Your task to perform on an android device: open sync settings in chrome Image 0: 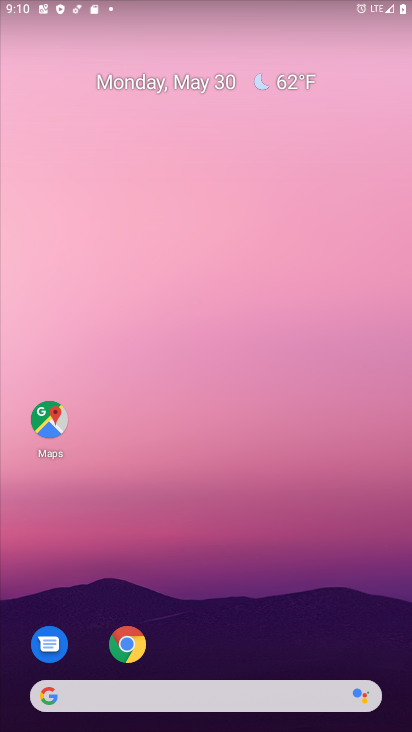
Step 0: click (126, 646)
Your task to perform on an android device: open sync settings in chrome Image 1: 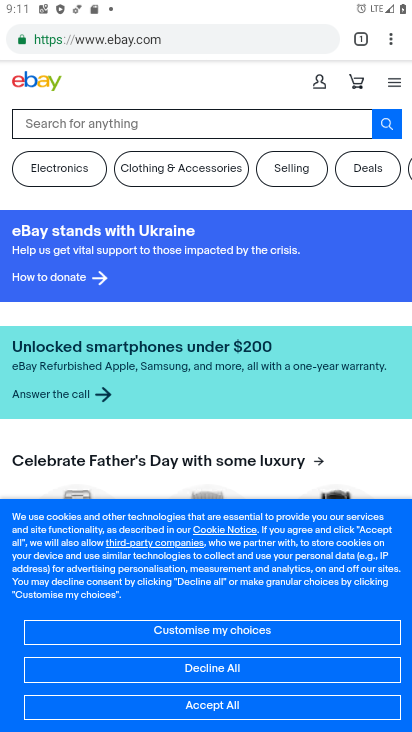
Step 1: click (392, 41)
Your task to perform on an android device: open sync settings in chrome Image 2: 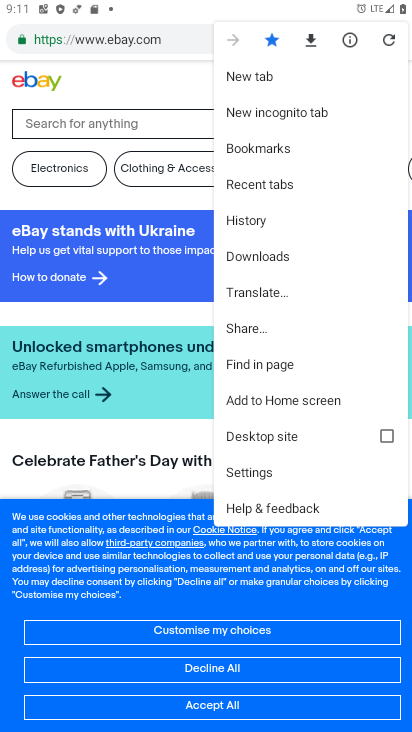
Step 2: click (261, 475)
Your task to perform on an android device: open sync settings in chrome Image 3: 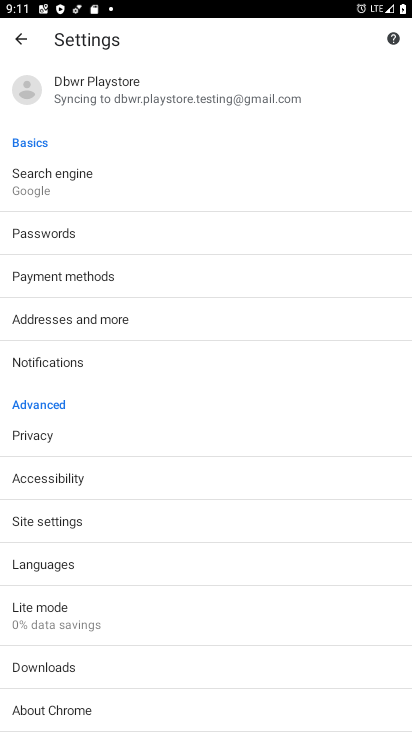
Step 3: click (76, 92)
Your task to perform on an android device: open sync settings in chrome Image 4: 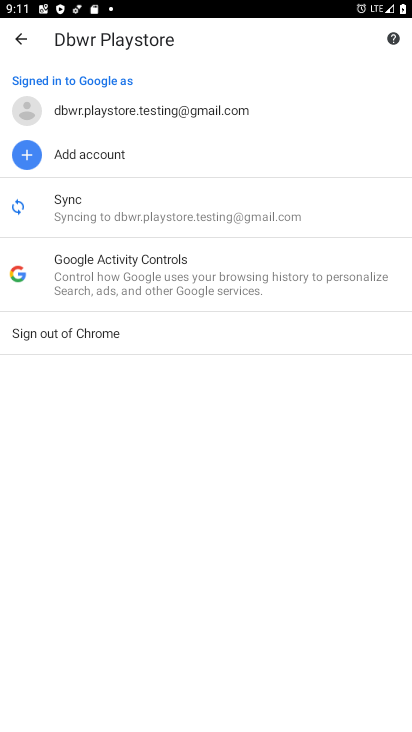
Step 4: click (81, 201)
Your task to perform on an android device: open sync settings in chrome Image 5: 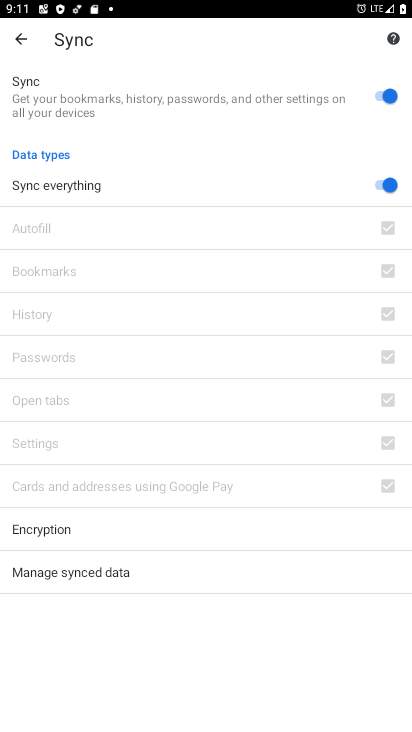
Step 5: task complete